Your task to perform on an android device: Clear the cart on walmart.com. Add razer blade to the cart on walmart.com Image 0: 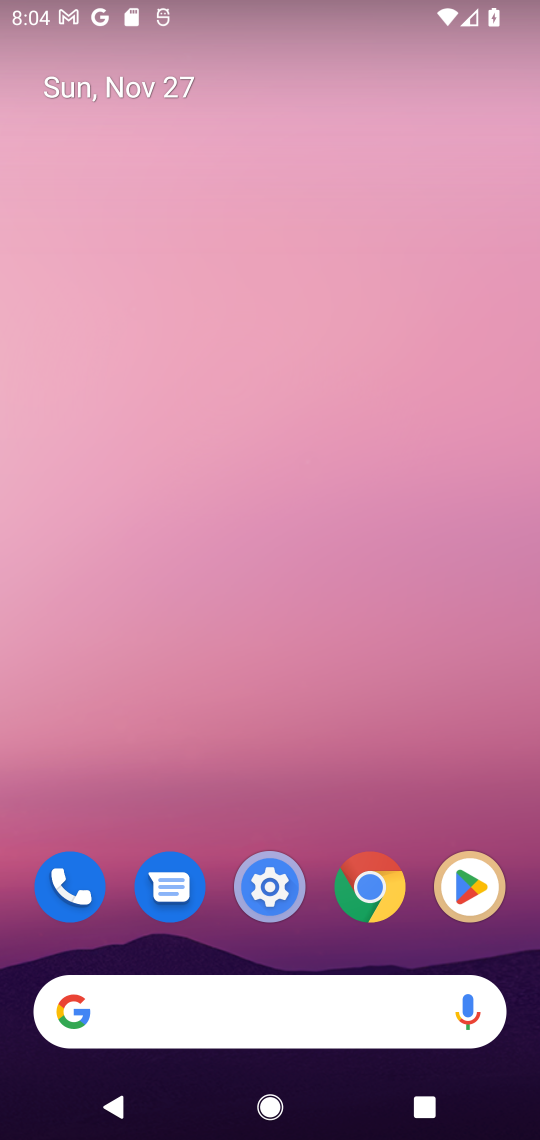
Step 0: click (269, 1034)
Your task to perform on an android device: Clear the cart on walmart.com. Add razer blade to the cart on walmart.com Image 1: 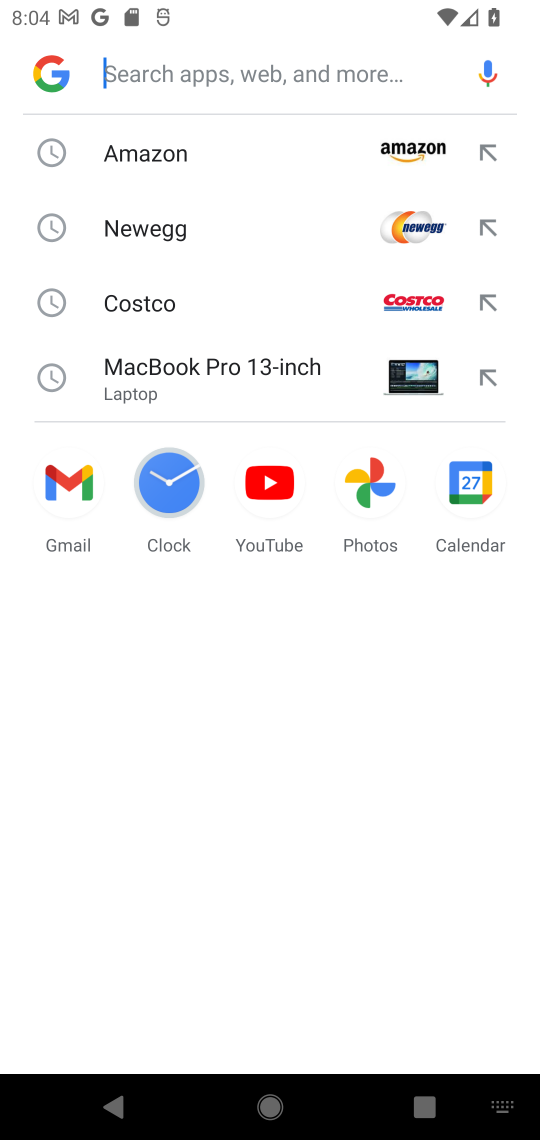
Step 1: type "walmart"
Your task to perform on an android device: Clear the cart on walmart.com. Add razer blade to the cart on walmart.com Image 2: 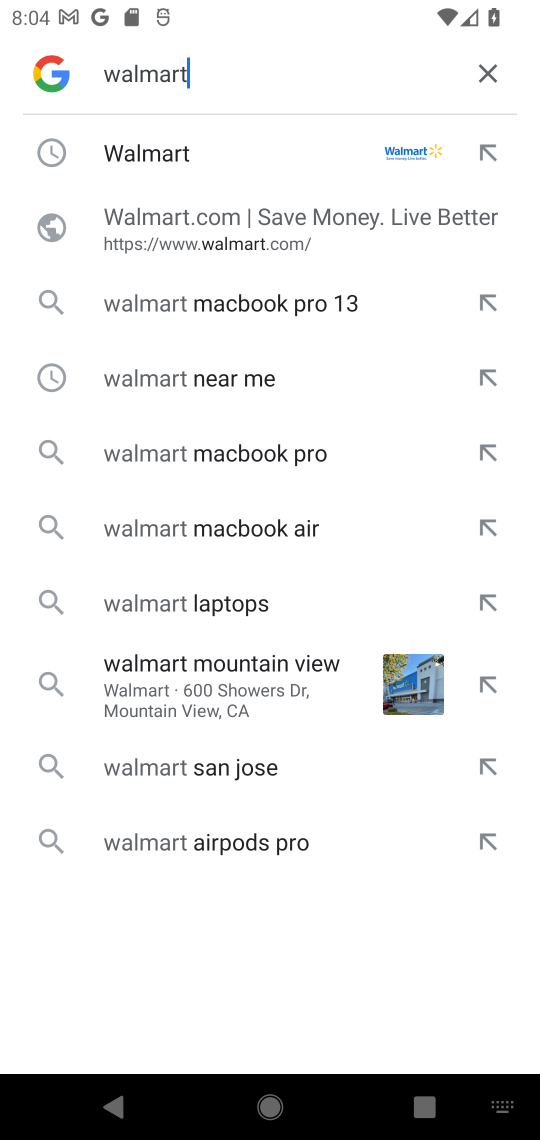
Step 2: click (239, 158)
Your task to perform on an android device: Clear the cart on walmart.com. Add razer blade to the cart on walmart.com Image 3: 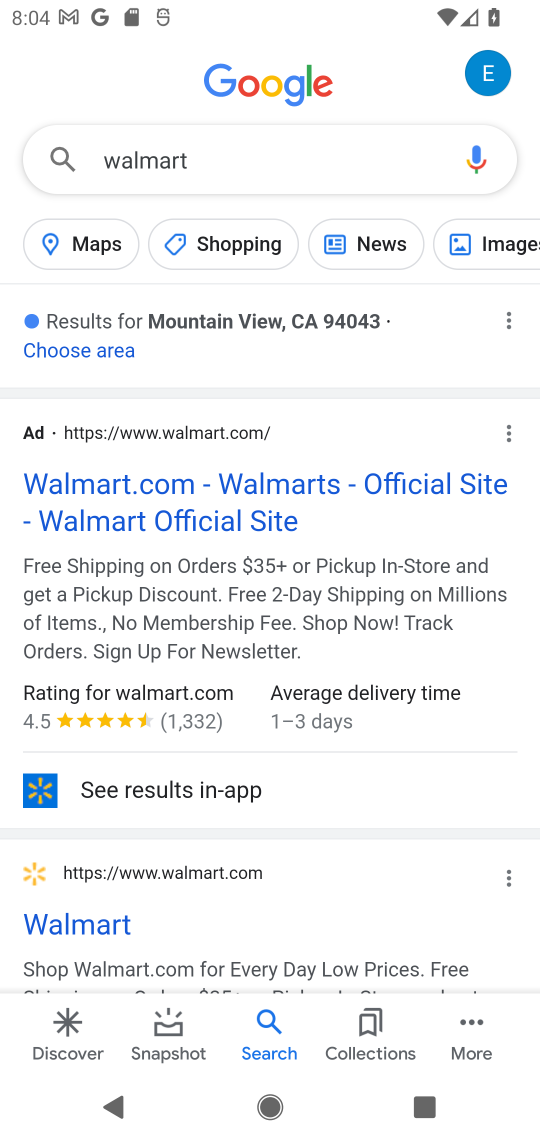
Step 3: click (167, 509)
Your task to perform on an android device: Clear the cart on walmart.com. Add razer blade to the cart on walmart.com Image 4: 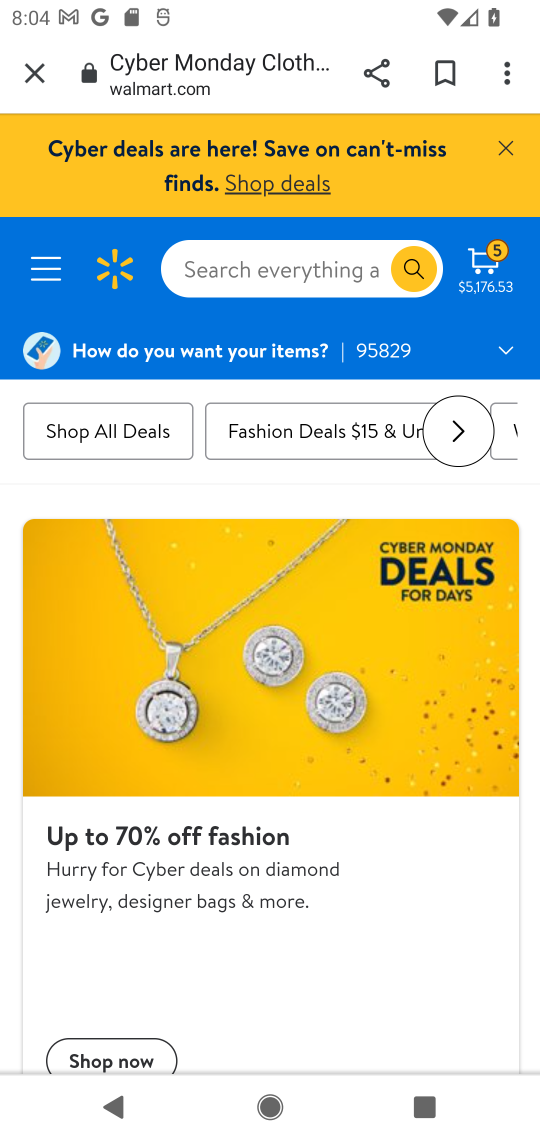
Step 4: click (262, 268)
Your task to perform on an android device: Clear the cart on walmart.com. Add razer blade to the cart on walmart.com Image 5: 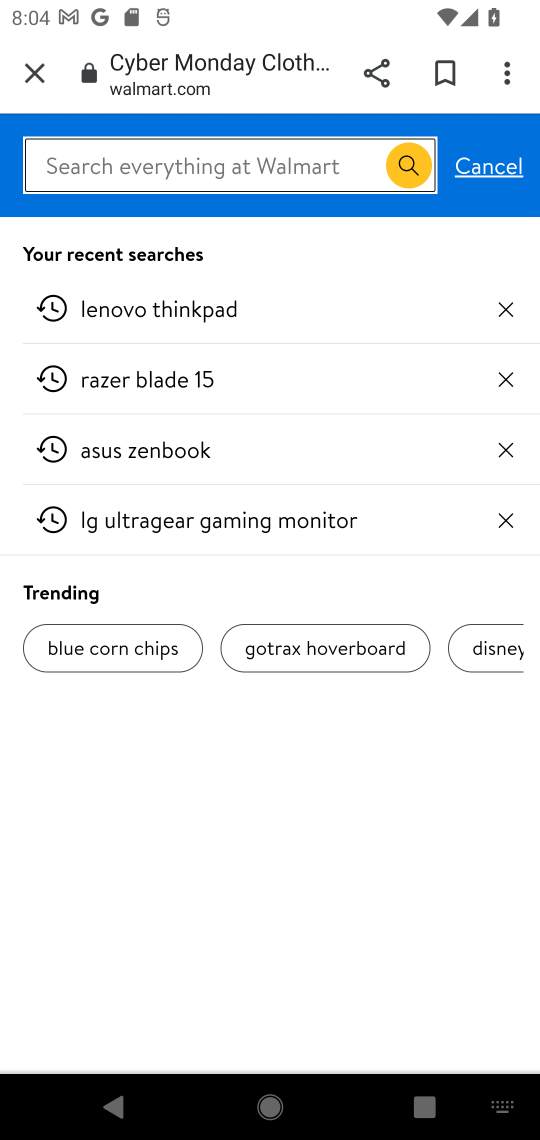
Step 5: type "razer bl"
Your task to perform on an android device: Clear the cart on walmart.com. Add razer blade to the cart on walmart.com Image 6: 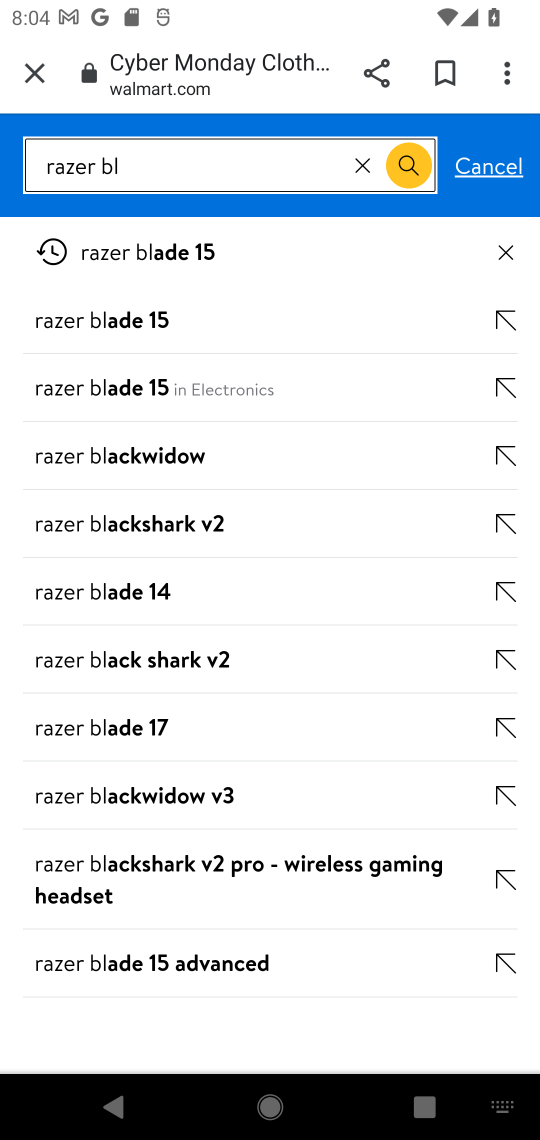
Step 6: click (118, 253)
Your task to perform on an android device: Clear the cart on walmart.com. Add razer blade to the cart on walmart.com Image 7: 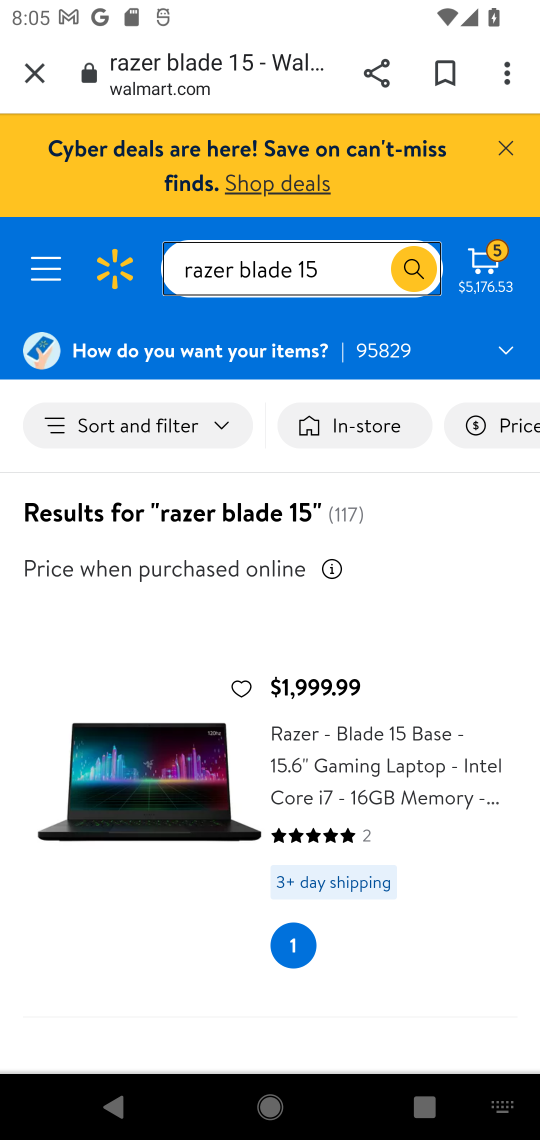
Step 7: click (348, 730)
Your task to perform on an android device: Clear the cart on walmart.com. Add razer blade to the cart on walmart.com Image 8: 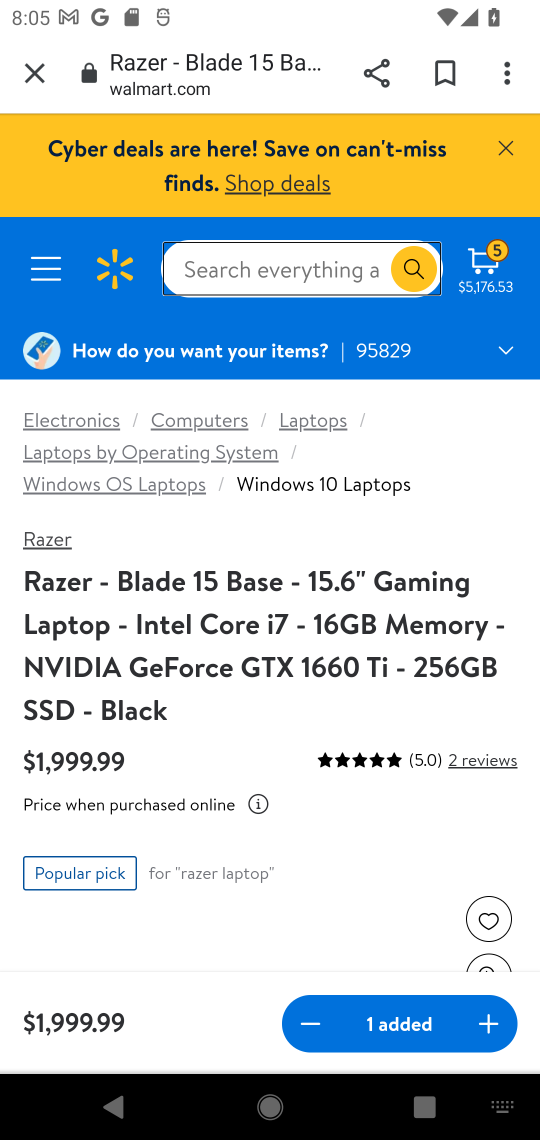
Step 8: task complete